Your task to perform on an android device: Show me popular videos on Youtube Image 0: 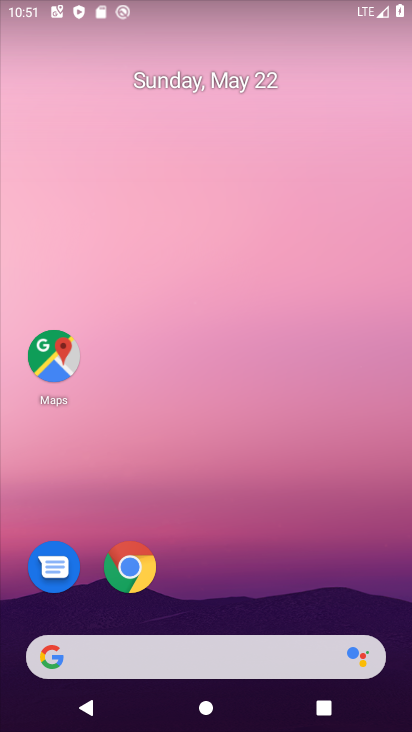
Step 0: drag from (238, 334) to (230, 12)
Your task to perform on an android device: Show me popular videos on Youtube Image 1: 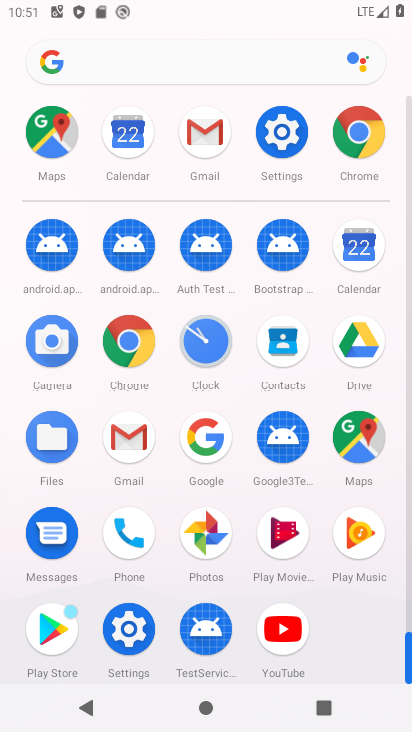
Step 1: click (290, 624)
Your task to perform on an android device: Show me popular videos on Youtube Image 2: 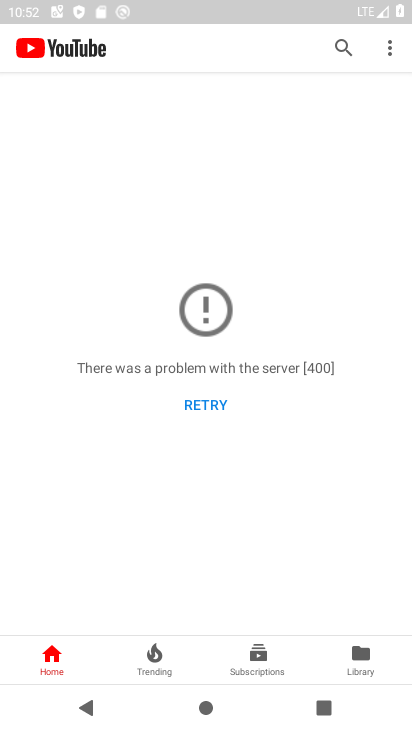
Step 2: click (43, 659)
Your task to perform on an android device: Show me popular videos on Youtube Image 3: 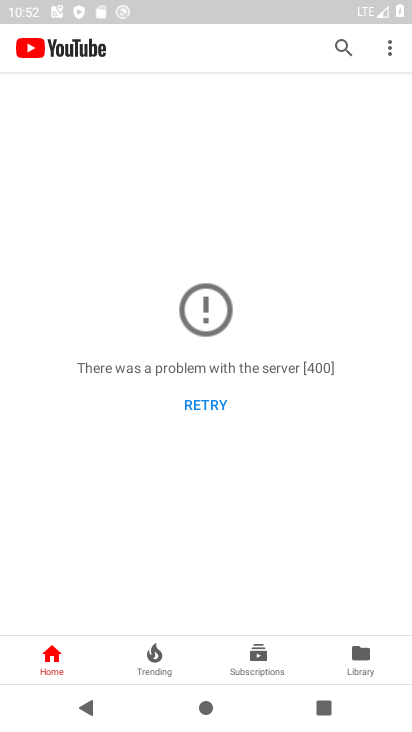
Step 3: task complete